Your task to perform on an android device: toggle translation in the chrome app Image 0: 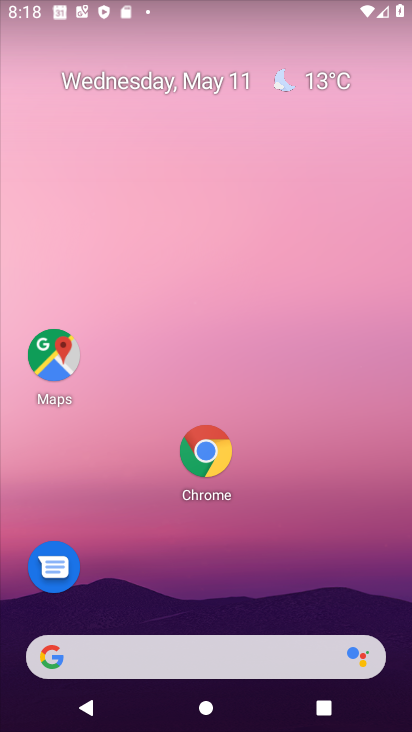
Step 0: click (207, 453)
Your task to perform on an android device: toggle translation in the chrome app Image 1: 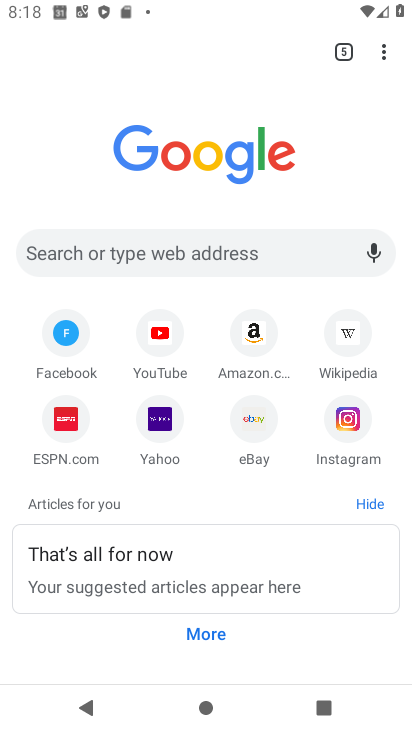
Step 1: drag from (383, 50) to (212, 445)
Your task to perform on an android device: toggle translation in the chrome app Image 2: 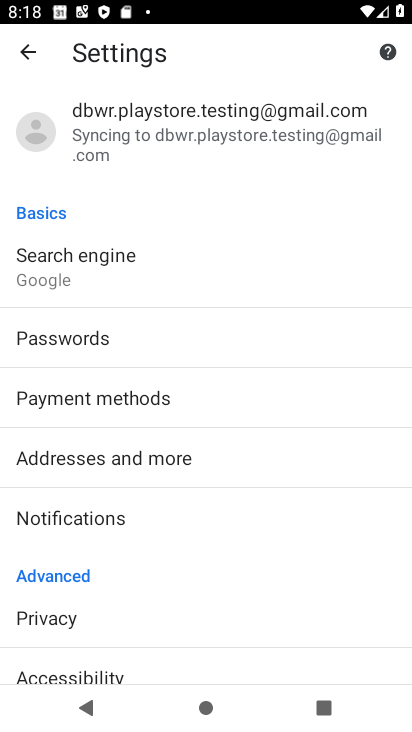
Step 2: drag from (180, 555) to (364, 196)
Your task to perform on an android device: toggle translation in the chrome app Image 3: 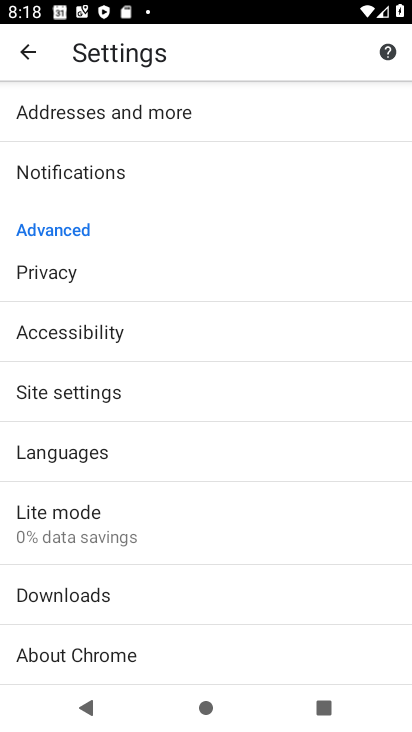
Step 3: click (100, 447)
Your task to perform on an android device: toggle translation in the chrome app Image 4: 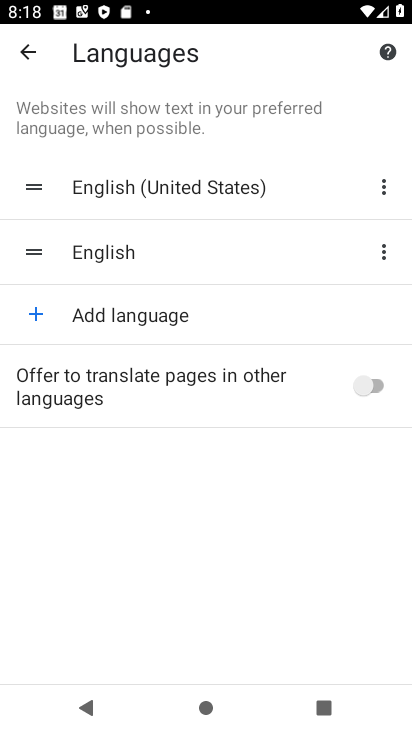
Step 4: click (377, 393)
Your task to perform on an android device: toggle translation in the chrome app Image 5: 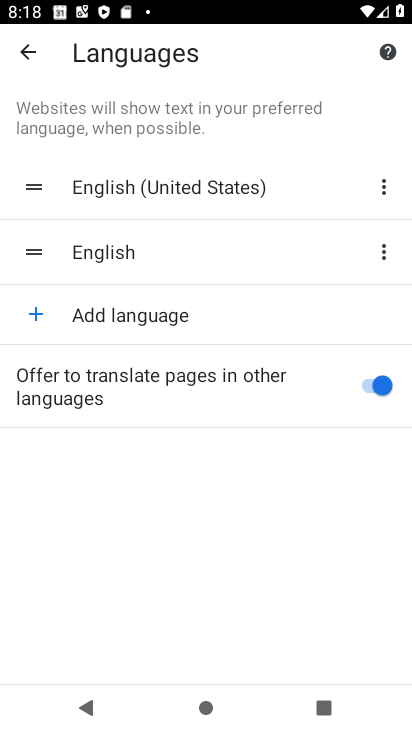
Step 5: task complete